Your task to perform on an android device: Go to notification settings Image 0: 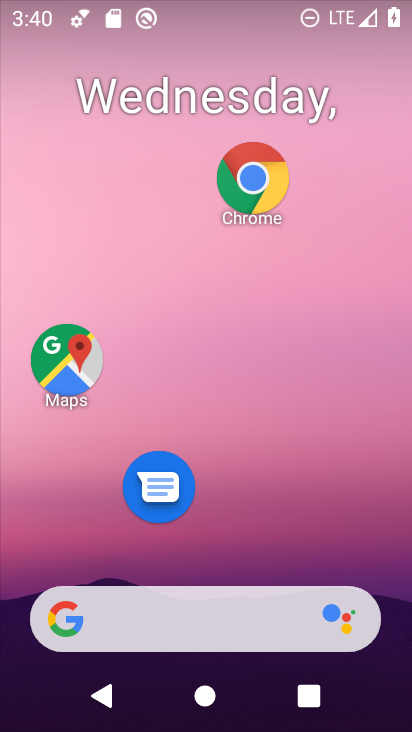
Step 0: drag from (261, 565) to (198, 192)
Your task to perform on an android device: Go to notification settings Image 1: 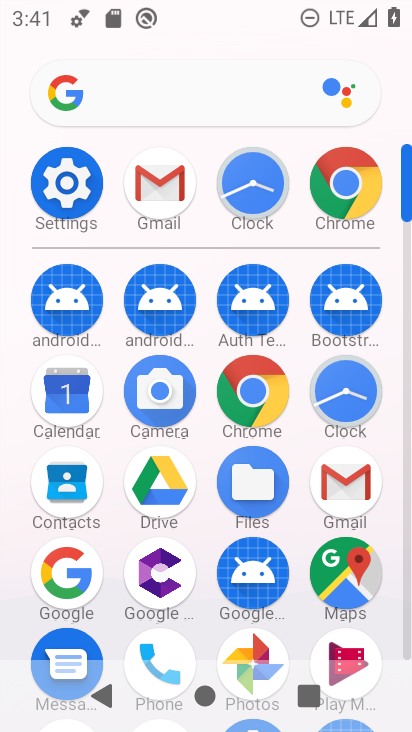
Step 1: click (69, 158)
Your task to perform on an android device: Go to notification settings Image 2: 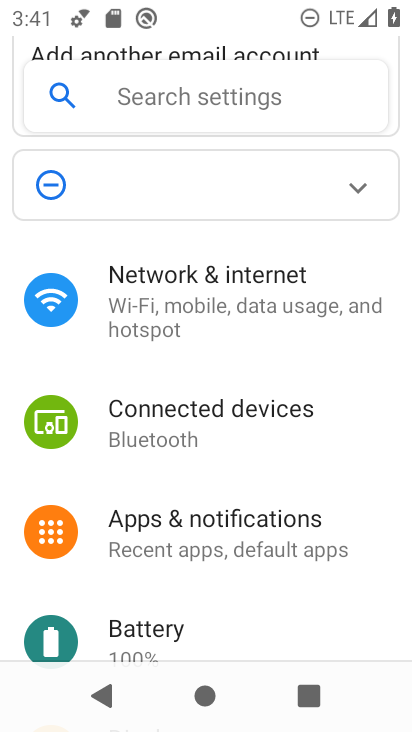
Step 2: click (220, 531)
Your task to perform on an android device: Go to notification settings Image 3: 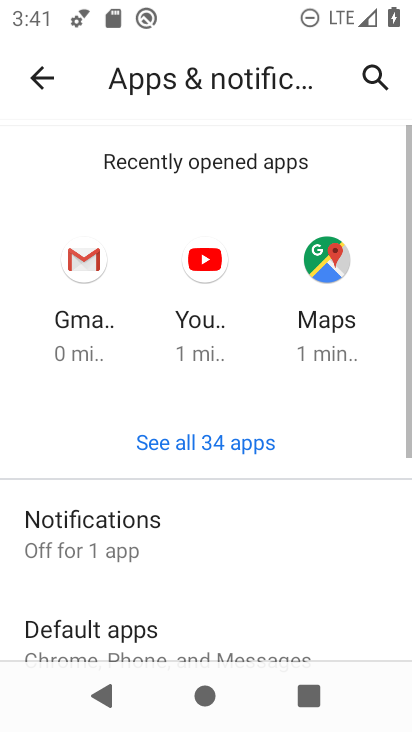
Step 3: click (147, 523)
Your task to perform on an android device: Go to notification settings Image 4: 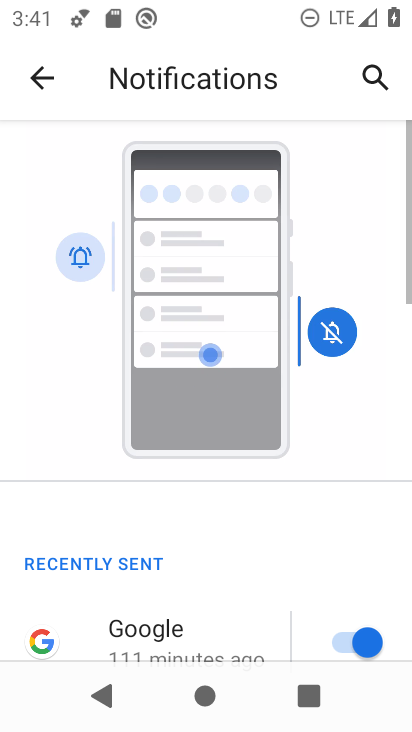
Step 4: task complete